Your task to perform on an android device: open app "Grab" Image 0: 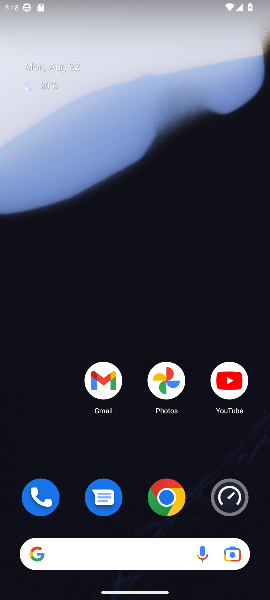
Step 0: press home button
Your task to perform on an android device: open app "Grab" Image 1: 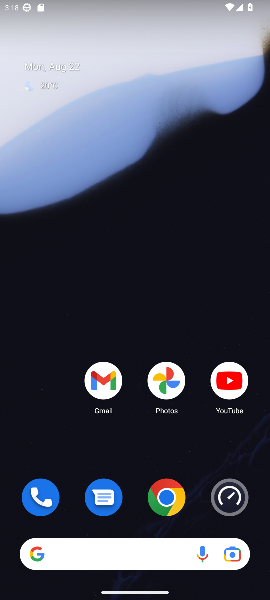
Step 1: drag from (53, 434) to (56, 104)
Your task to perform on an android device: open app "Grab" Image 2: 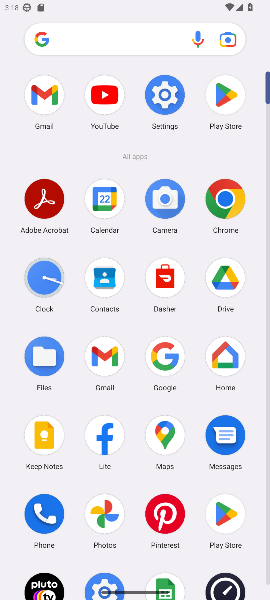
Step 2: click (226, 103)
Your task to perform on an android device: open app "Grab" Image 3: 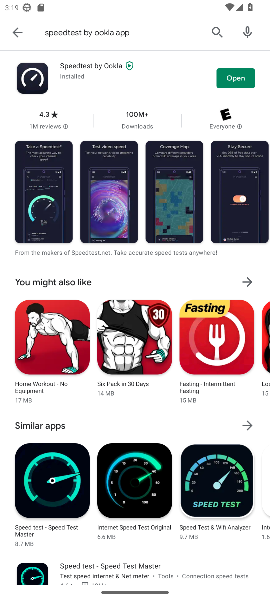
Step 3: press back button
Your task to perform on an android device: open app "Grab" Image 4: 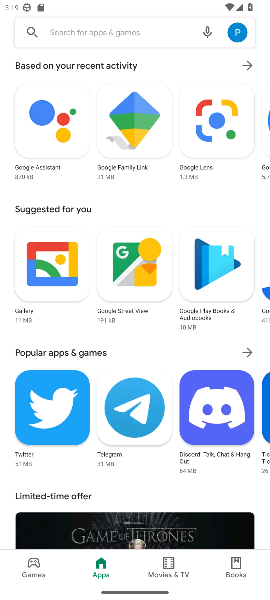
Step 4: click (138, 30)
Your task to perform on an android device: open app "Grab" Image 5: 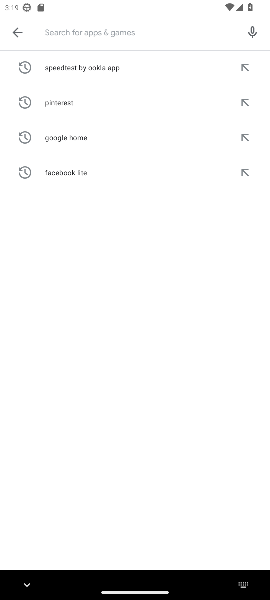
Step 5: type "grab"
Your task to perform on an android device: open app "Grab" Image 6: 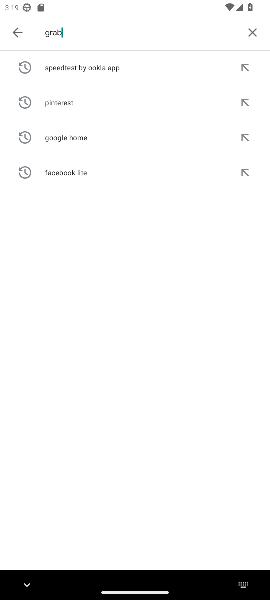
Step 6: press enter
Your task to perform on an android device: open app "Grab" Image 7: 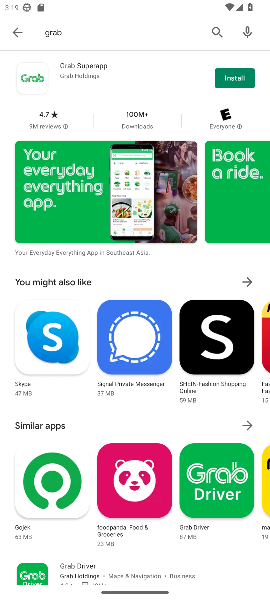
Step 7: task complete